Your task to perform on an android device: Open accessibility settings Image 0: 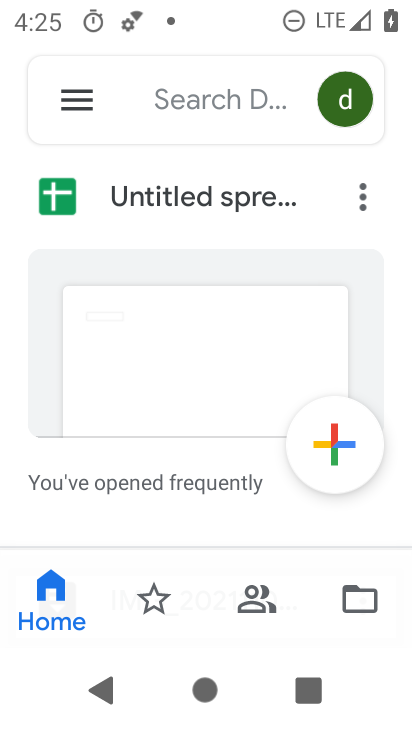
Step 0: press home button
Your task to perform on an android device: Open accessibility settings Image 1: 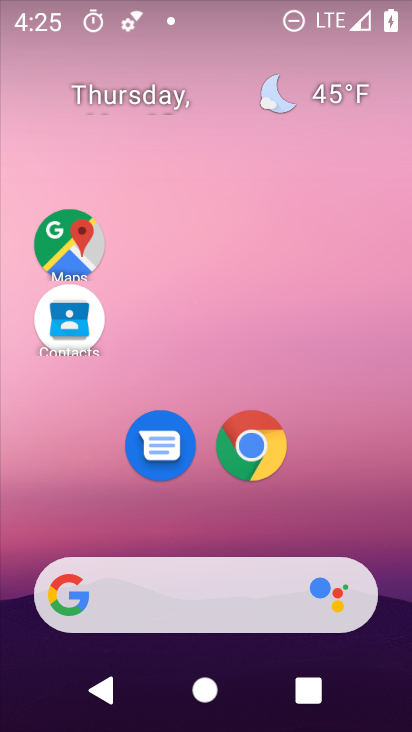
Step 1: drag from (341, 492) to (239, 40)
Your task to perform on an android device: Open accessibility settings Image 2: 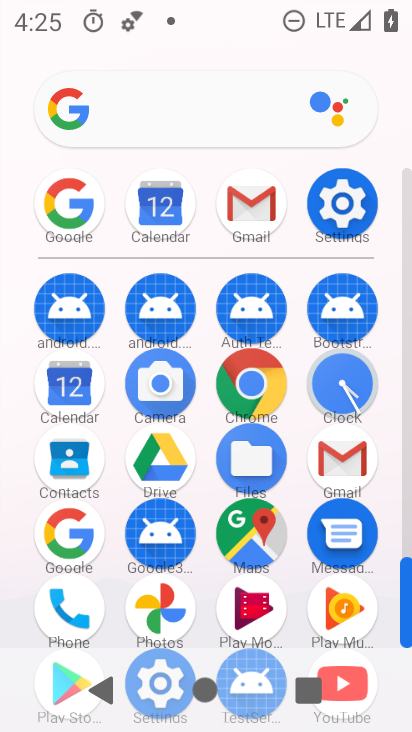
Step 2: click (341, 204)
Your task to perform on an android device: Open accessibility settings Image 3: 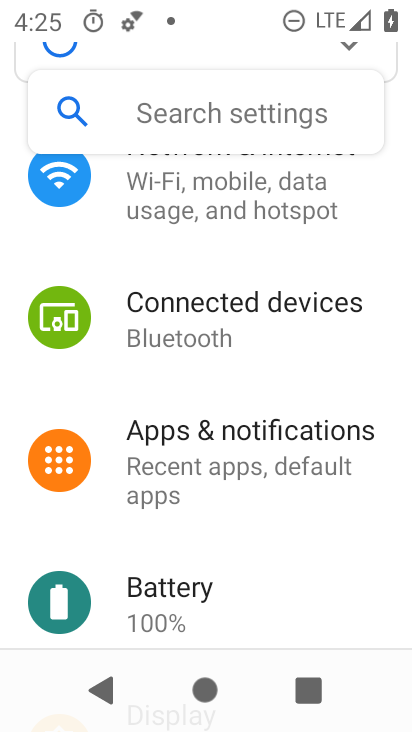
Step 3: drag from (209, 517) to (292, 390)
Your task to perform on an android device: Open accessibility settings Image 4: 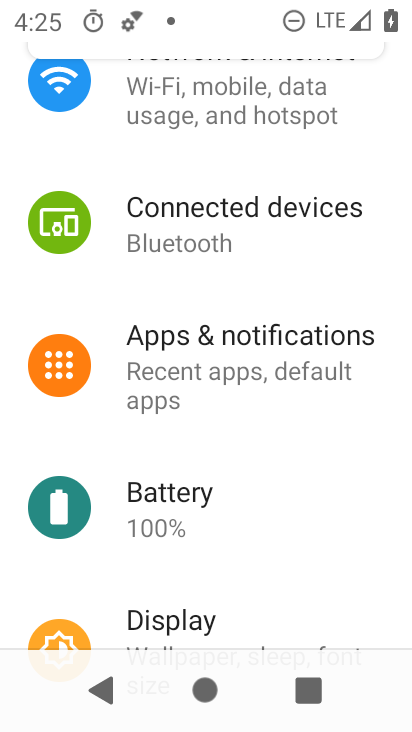
Step 4: drag from (209, 564) to (299, 402)
Your task to perform on an android device: Open accessibility settings Image 5: 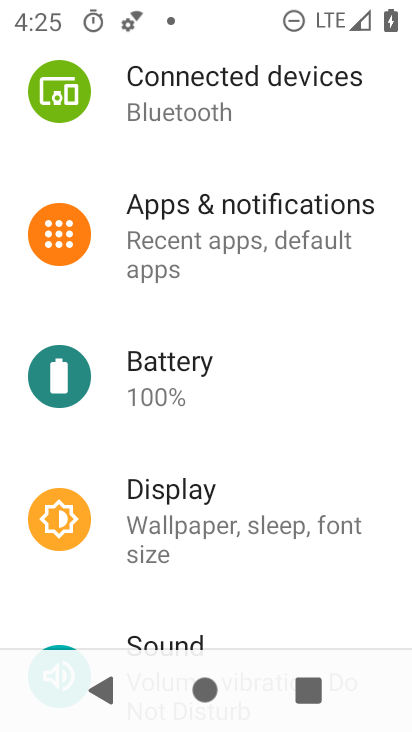
Step 5: drag from (192, 586) to (281, 433)
Your task to perform on an android device: Open accessibility settings Image 6: 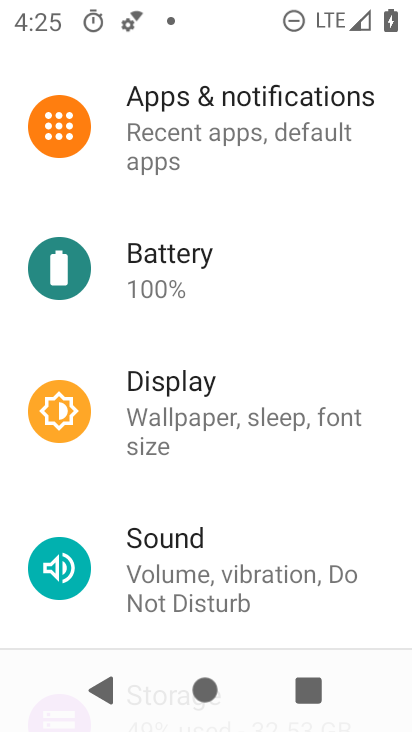
Step 6: drag from (207, 512) to (270, 367)
Your task to perform on an android device: Open accessibility settings Image 7: 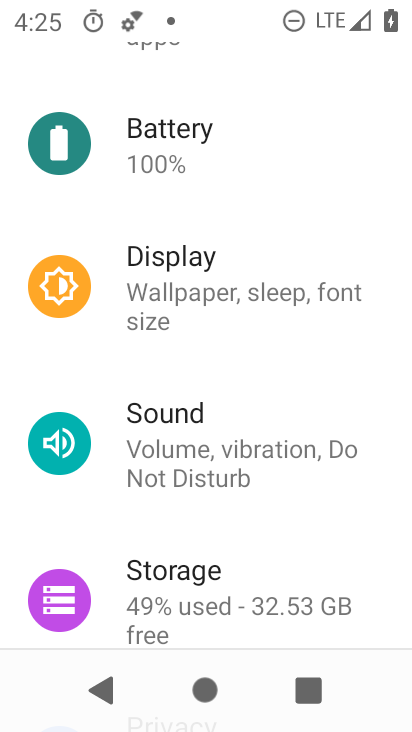
Step 7: drag from (182, 543) to (261, 382)
Your task to perform on an android device: Open accessibility settings Image 8: 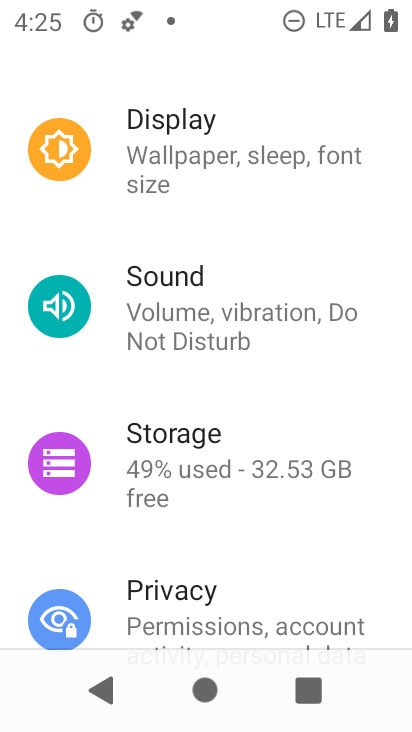
Step 8: drag from (166, 545) to (263, 338)
Your task to perform on an android device: Open accessibility settings Image 9: 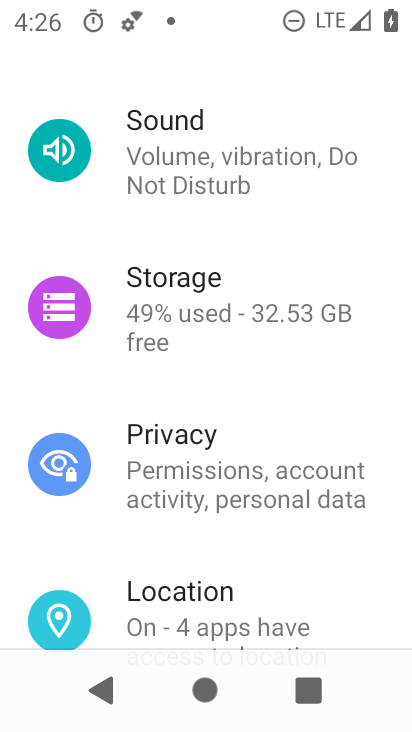
Step 9: drag from (165, 552) to (284, 387)
Your task to perform on an android device: Open accessibility settings Image 10: 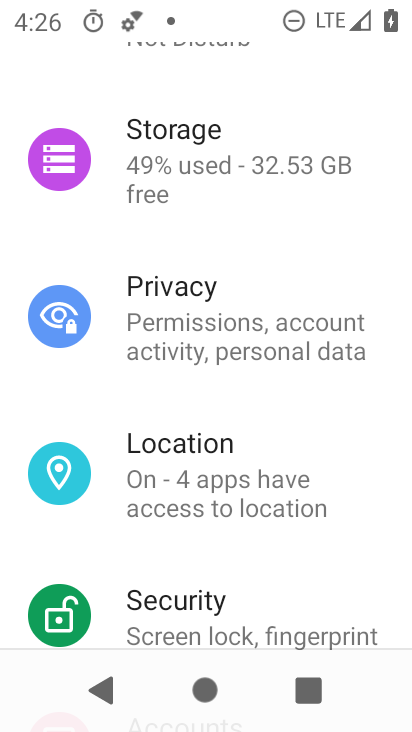
Step 10: drag from (202, 570) to (313, 399)
Your task to perform on an android device: Open accessibility settings Image 11: 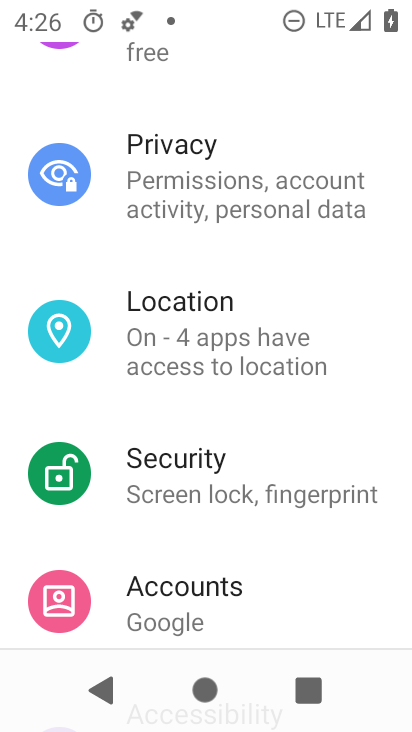
Step 11: drag from (191, 552) to (294, 403)
Your task to perform on an android device: Open accessibility settings Image 12: 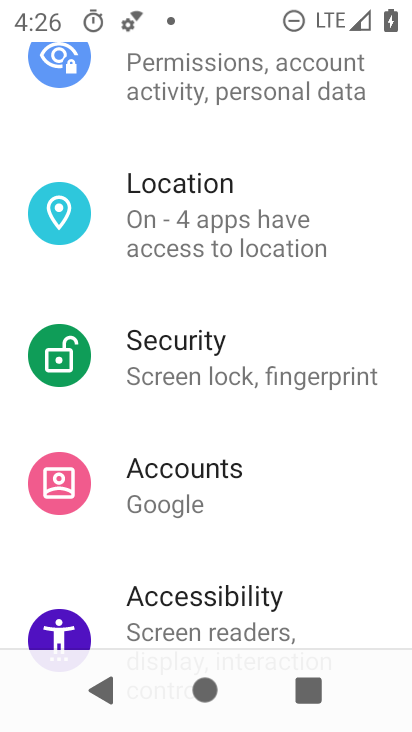
Step 12: drag from (217, 553) to (308, 409)
Your task to perform on an android device: Open accessibility settings Image 13: 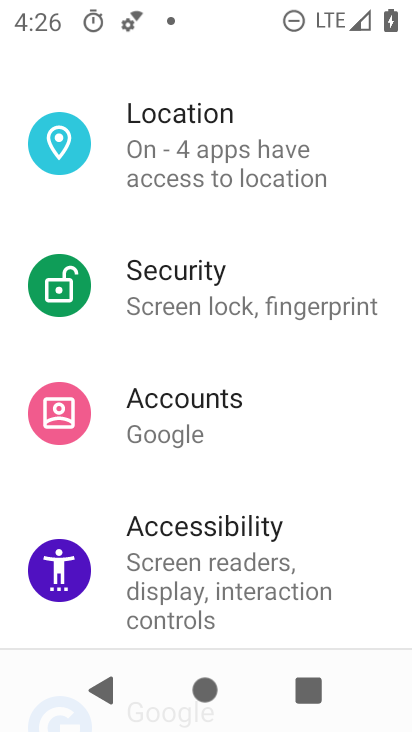
Step 13: click (204, 525)
Your task to perform on an android device: Open accessibility settings Image 14: 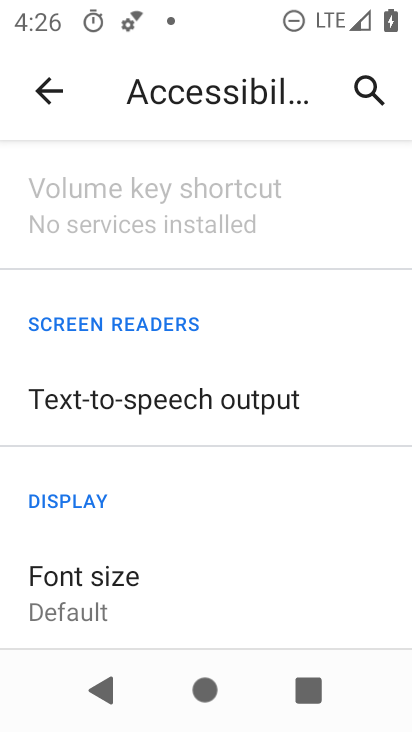
Step 14: task complete